Your task to perform on an android device: turn off javascript in the chrome app Image 0: 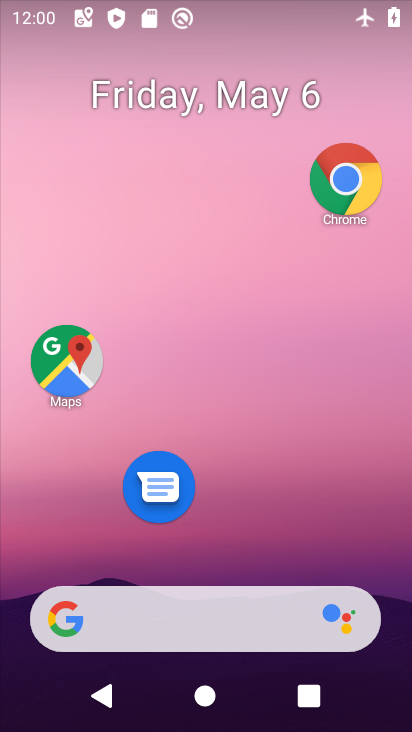
Step 0: click (343, 205)
Your task to perform on an android device: turn off javascript in the chrome app Image 1: 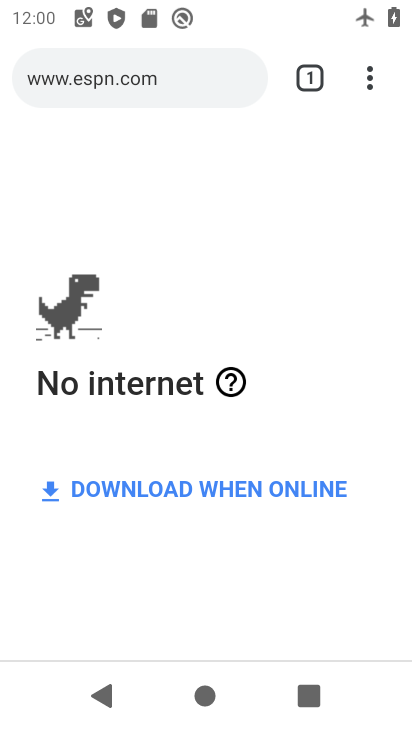
Step 1: click (363, 85)
Your task to perform on an android device: turn off javascript in the chrome app Image 2: 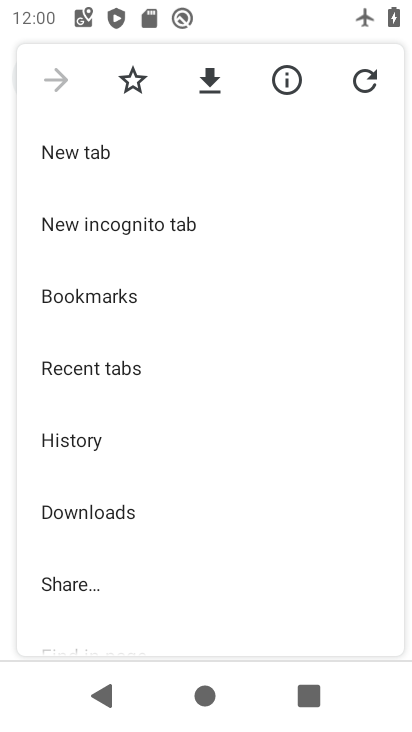
Step 2: drag from (130, 612) to (163, 236)
Your task to perform on an android device: turn off javascript in the chrome app Image 3: 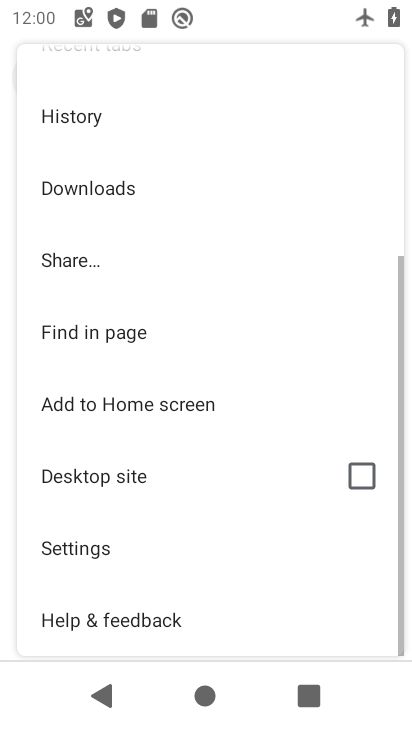
Step 3: click (137, 544)
Your task to perform on an android device: turn off javascript in the chrome app Image 4: 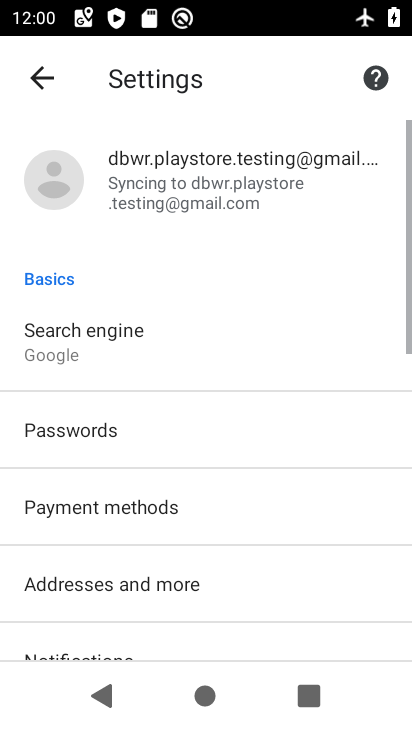
Step 4: drag from (154, 560) to (177, 178)
Your task to perform on an android device: turn off javascript in the chrome app Image 5: 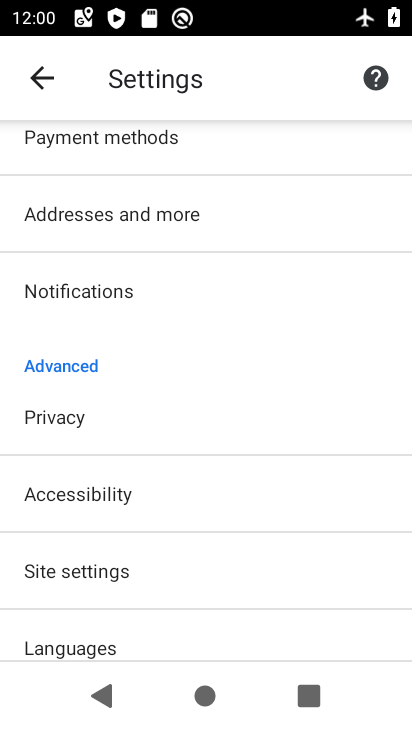
Step 5: drag from (119, 626) to (150, 360)
Your task to perform on an android device: turn off javascript in the chrome app Image 6: 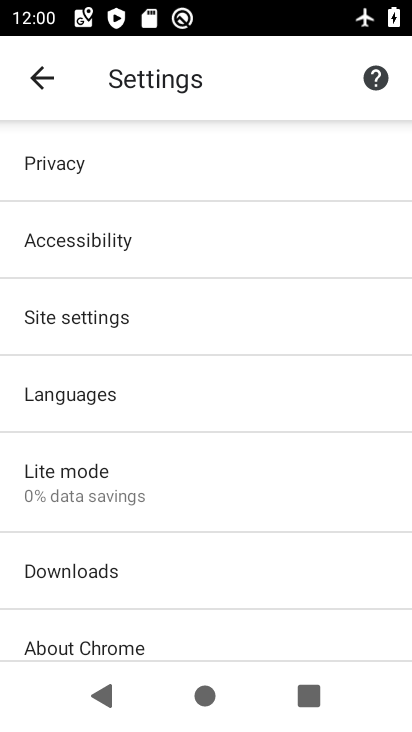
Step 6: click (188, 312)
Your task to perform on an android device: turn off javascript in the chrome app Image 7: 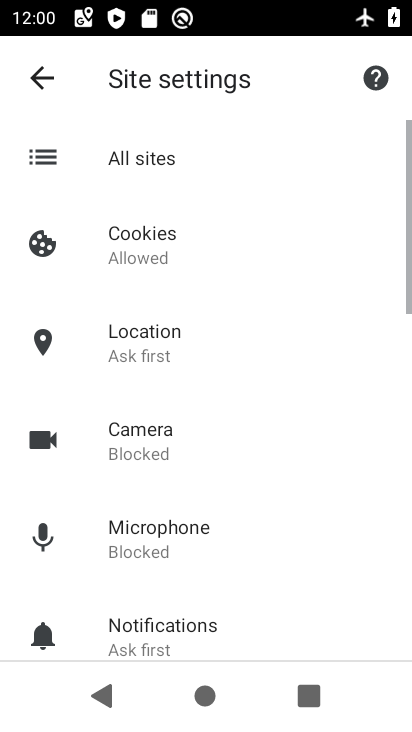
Step 7: drag from (179, 549) to (227, 322)
Your task to perform on an android device: turn off javascript in the chrome app Image 8: 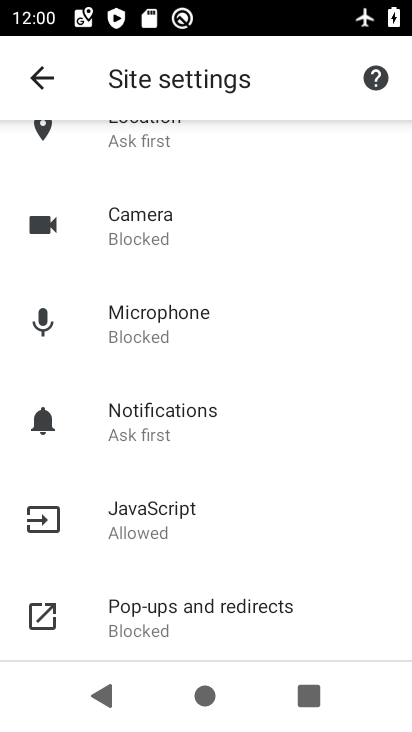
Step 8: click (229, 501)
Your task to perform on an android device: turn off javascript in the chrome app Image 9: 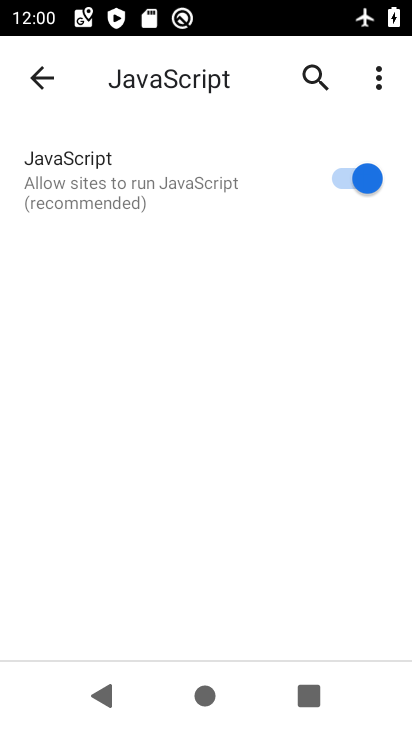
Step 9: click (339, 183)
Your task to perform on an android device: turn off javascript in the chrome app Image 10: 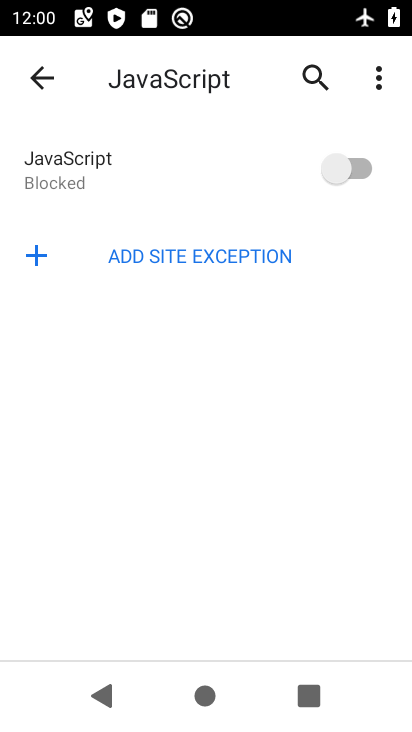
Step 10: task complete